Your task to perform on an android device: Go to ESPN.com Image 0: 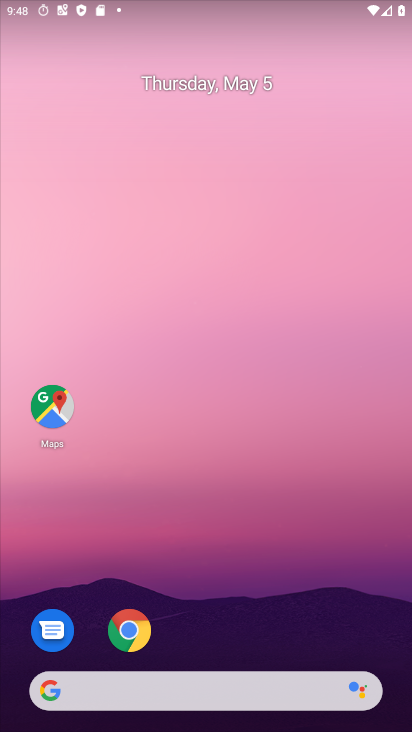
Step 0: click (126, 627)
Your task to perform on an android device: Go to ESPN.com Image 1: 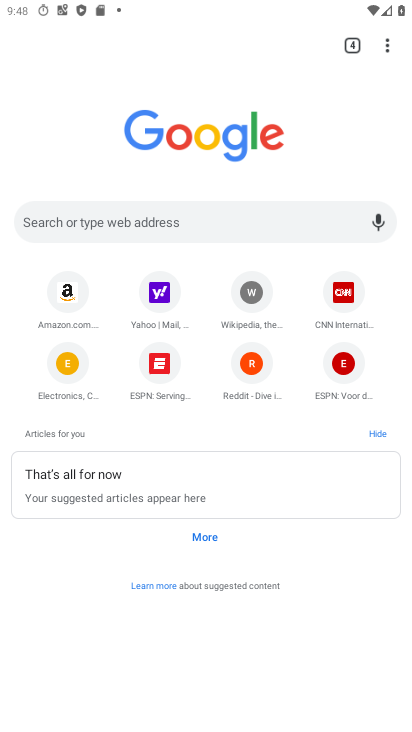
Step 1: click (160, 364)
Your task to perform on an android device: Go to ESPN.com Image 2: 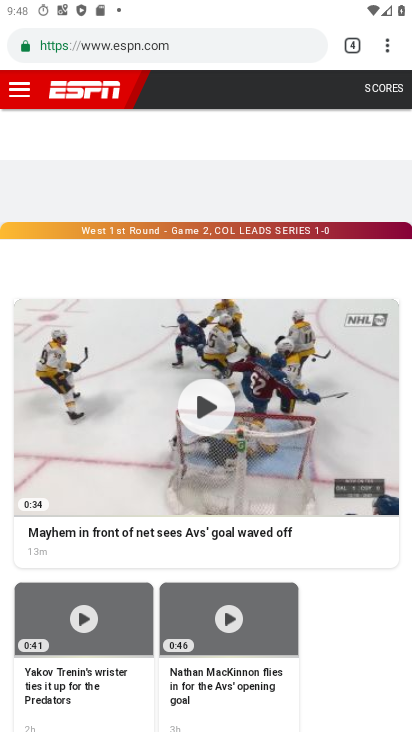
Step 2: task complete